Your task to perform on an android device: What's the weather? Image 0: 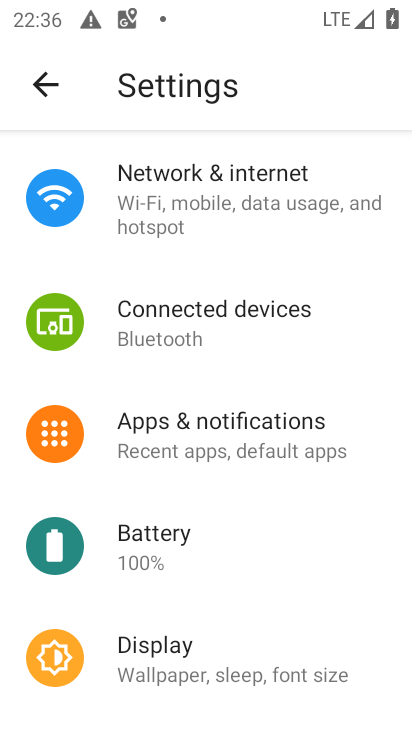
Step 0: press home button
Your task to perform on an android device: What's the weather? Image 1: 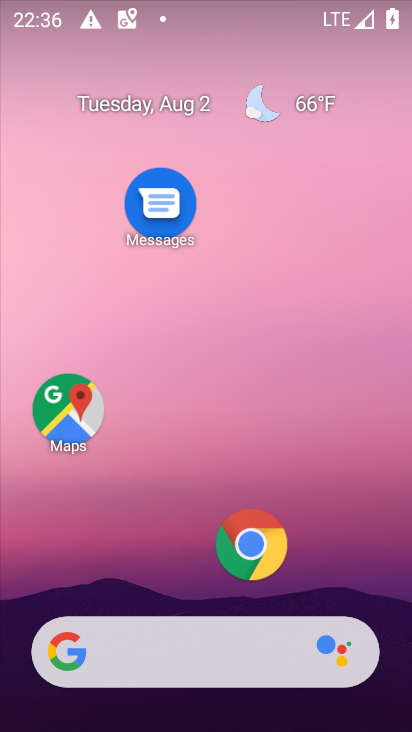
Step 1: drag from (170, 593) to (177, 119)
Your task to perform on an android device: What's the weather? Image 2: 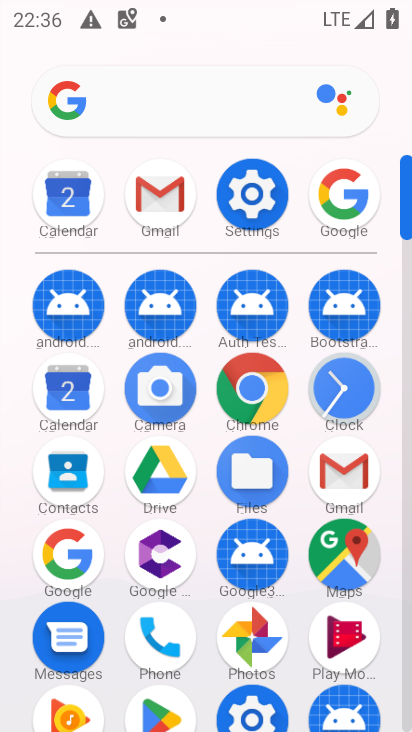
Step 2: click (76, 565)
Your task to perform on an android device: What's the weather? Image 3: 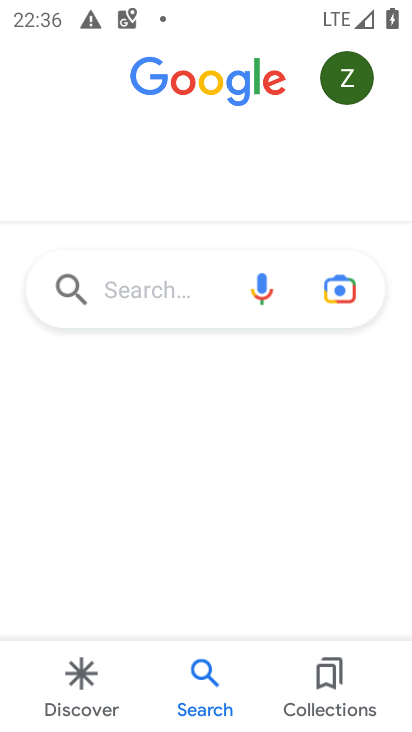
Step 3: click (156, 304)
Your task to perform on an android device: What's the weather? Image 4: 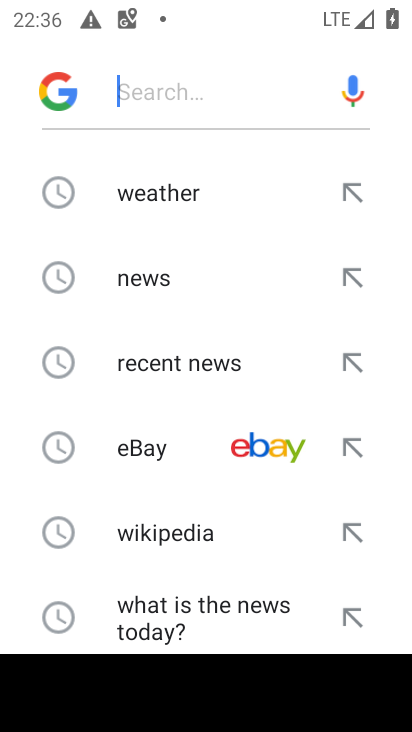
Step 4: click (162, 199)
Your task to perform on an android device: What's the weather? Image 5: 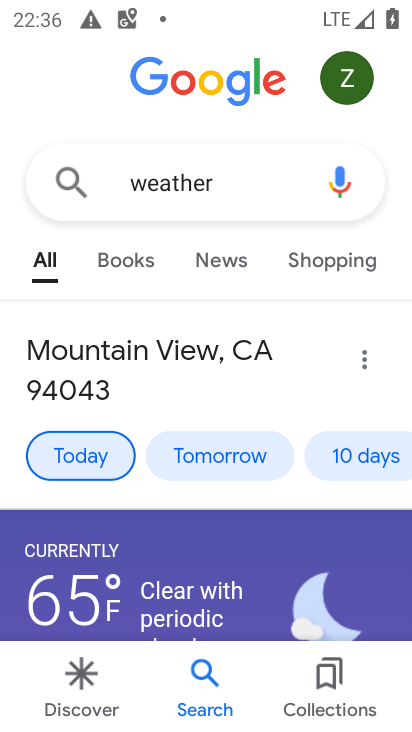
Step 5: task complete